Your task to perform on an android device: Go to ESPN.com Image 0: 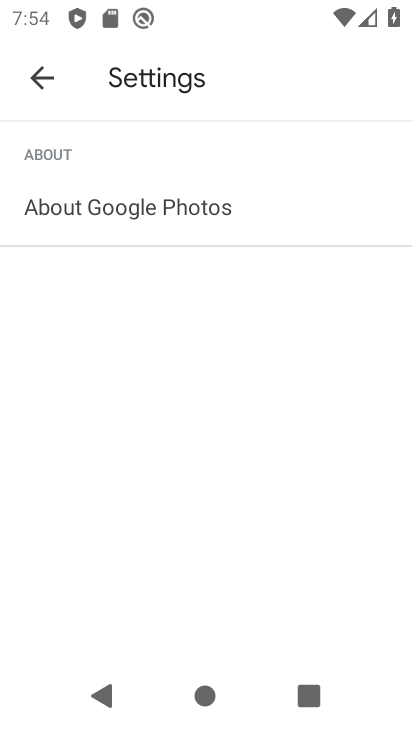
Step 0: press home button
Your task to perform on an android device: Go to ESPN.com Image 1: 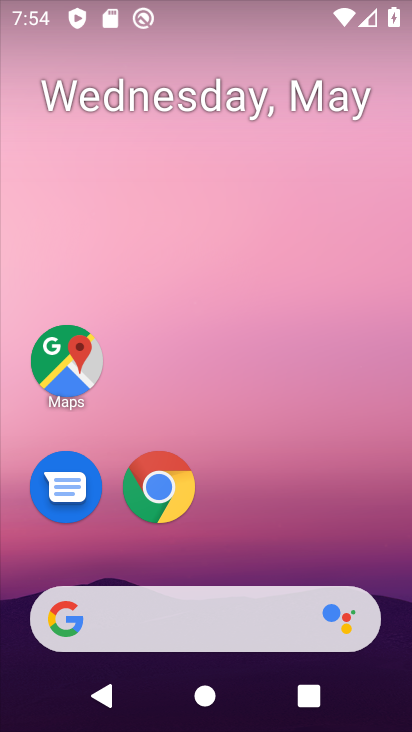
Step 1: click (230, 607)
Your task to perform on an android device: Go to ESPN.com Image 2: 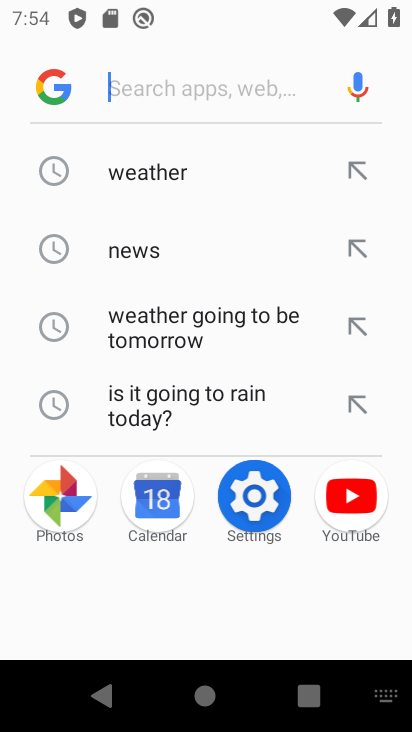
Step 2: type "espn.com"
Your task to perform on an android device: Go to ESPN.com Image 3: 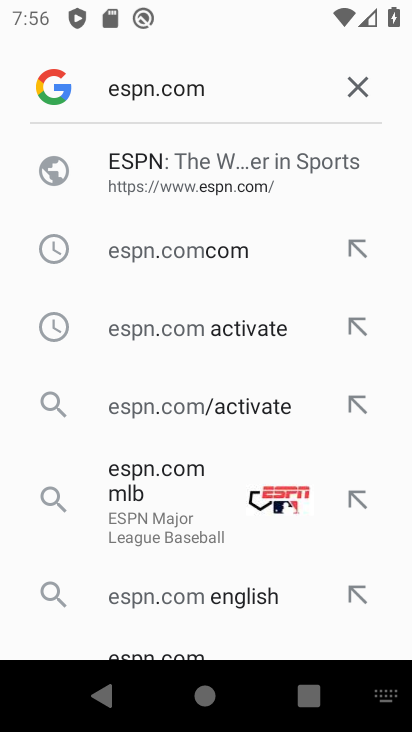
Step 3: click (121, 172)
Your task to perform on an android device: Go to ESPN.com Image 4: 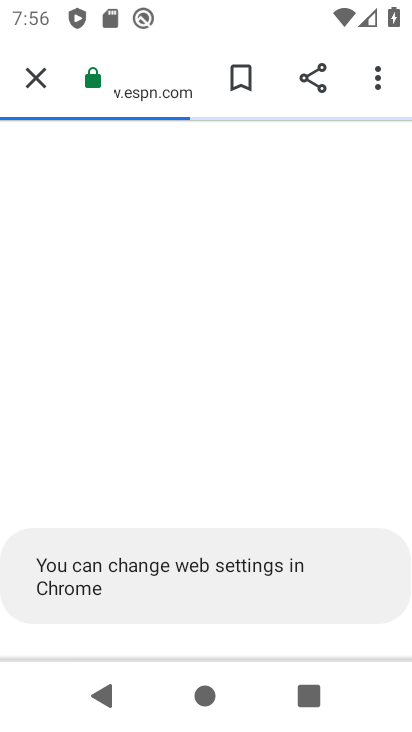
Step 4: task complete